Your task to perform on an android device: all mails in gmail Image 0: 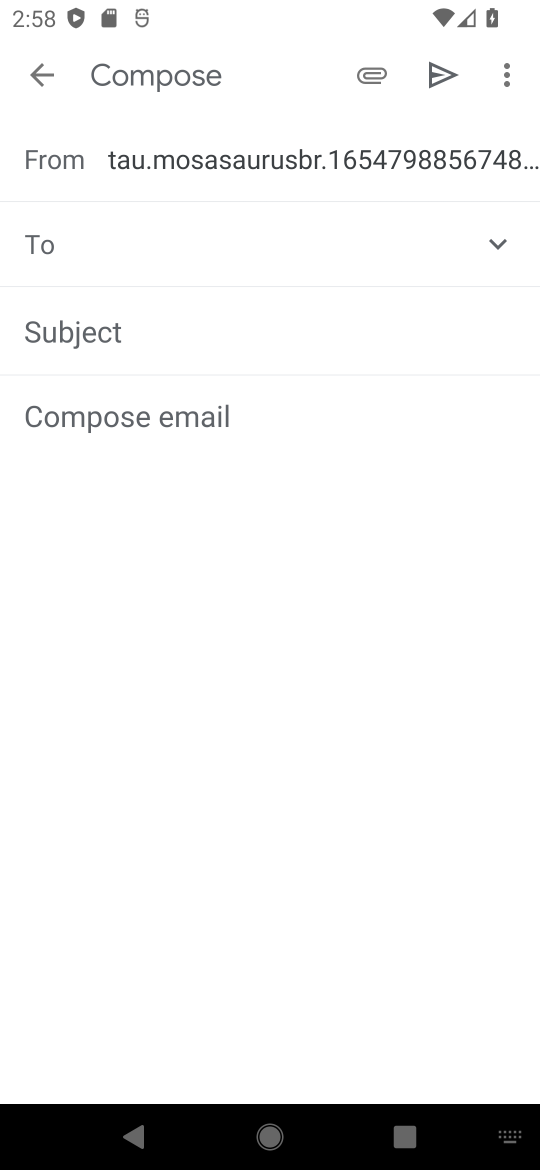
Step 0: click (44, 74)
Your task to perform on an android device: all mails in gmail Image 1: 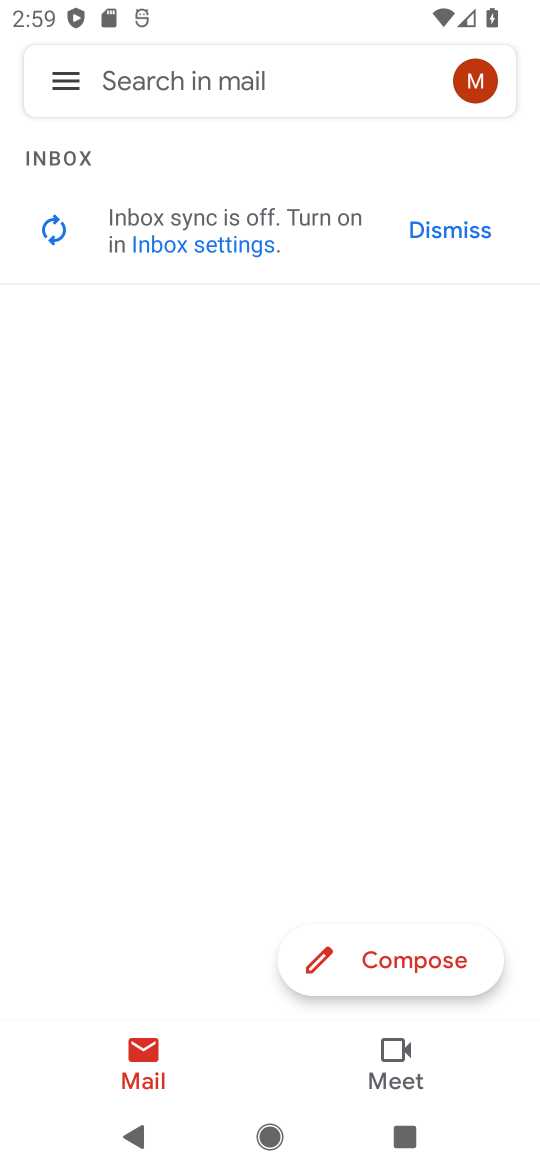
Step 1: click (66, 69)
Your task to perform on an android device: all mails in gmail Image 2: 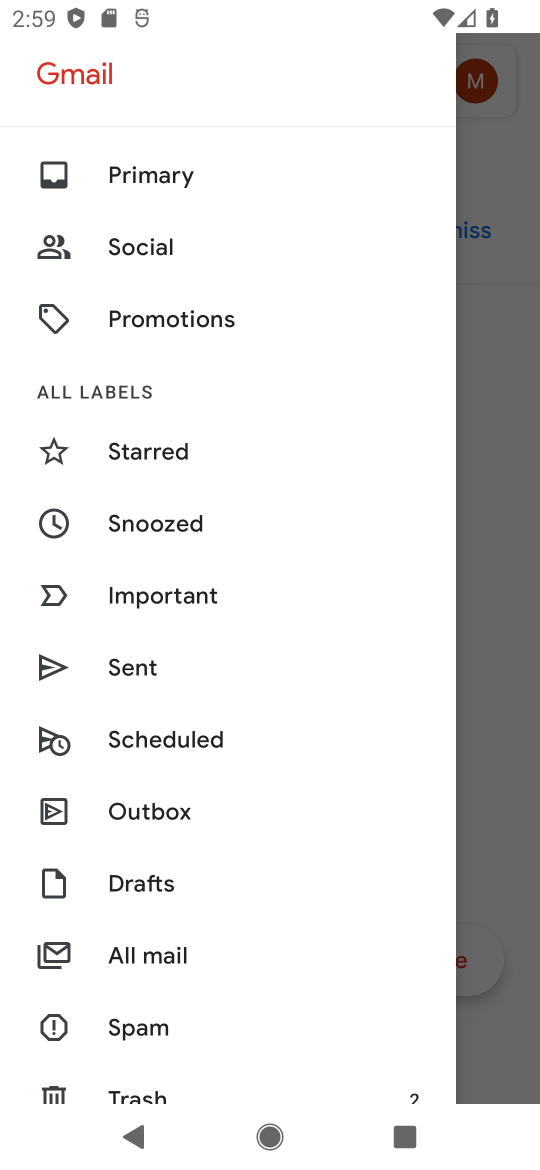
Step 2: click (159, 948)
Your task to perform on an android device: all mails in gmail Image 3: 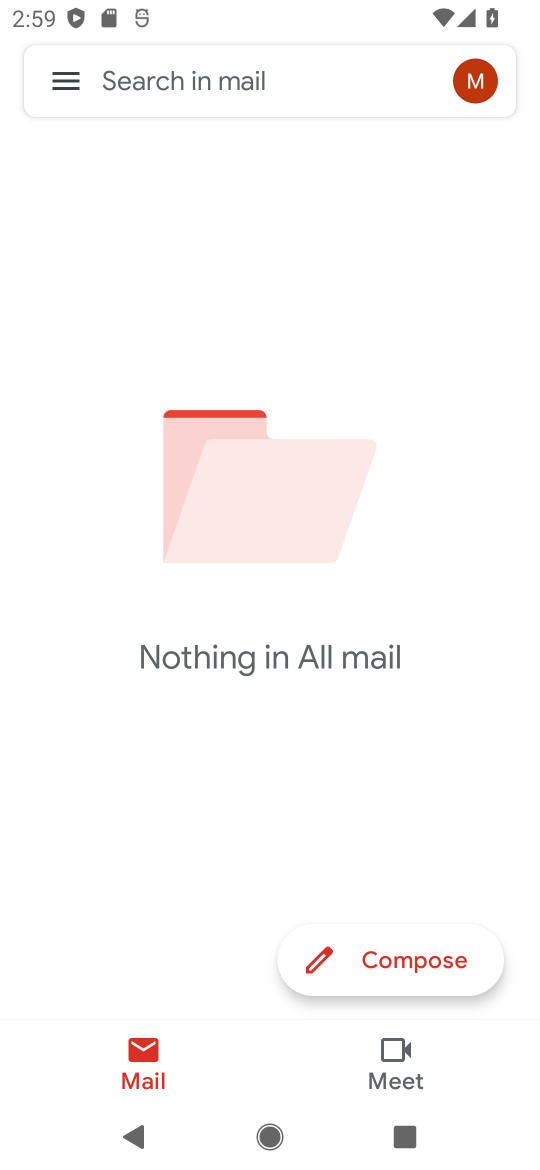
Step 3: task complete